Your task to perform on an android device: install app "Messages" Image 0: 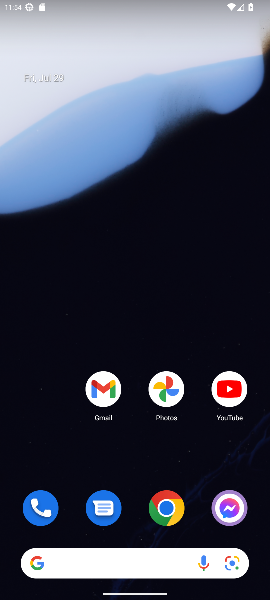
Step 0: drag from (115, 558) to (180, 4)
Your task to perform on an android device: install app "Messages" Image 1: 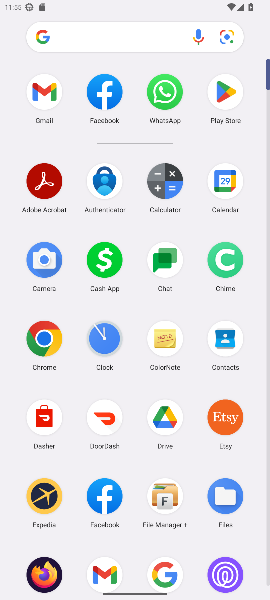
Step 1: drag from (182, 523) to (215, 353)
Your task to perform on an android device: install app "Messages" Image 2: 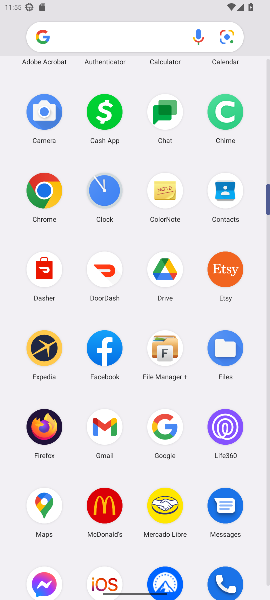
Step 2: drag from (192, 175) to (181, 536)
Your task to perform on an android device: install app "Messages" Image 3: 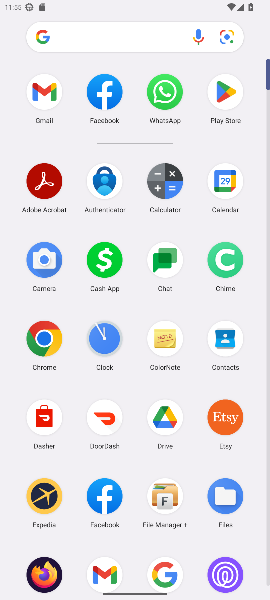
Step 3: click (227, 100)
Your task to perform on an android device: install app "Messages" Image 4: 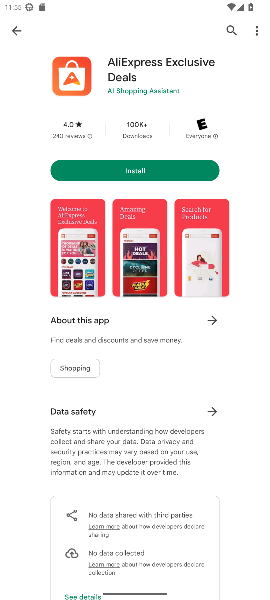
Step 4: click (232, 27)
Your task to perform on an android device: install app "Messages" Image 5: 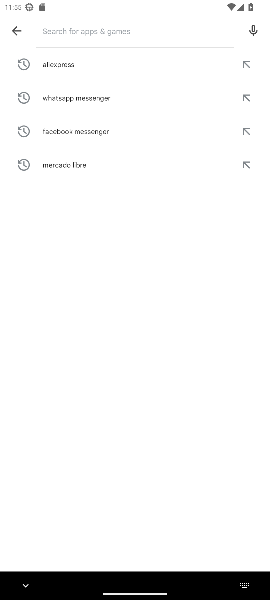
Step 5: type "messages"
Your task to perform on an android device: install app "Messages" Image 6: 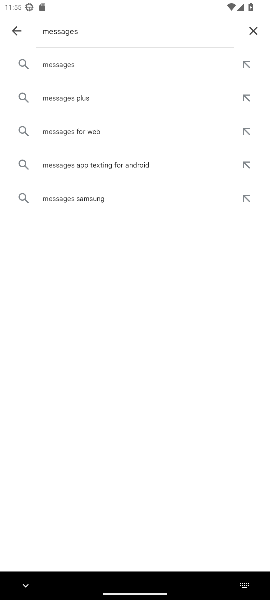
Step 6: click (60, 64)
Your task to perform on an android device: install app "Messages" Image 7: 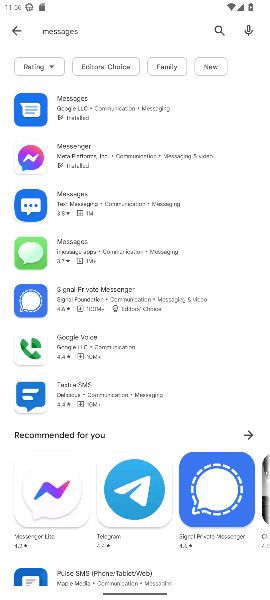
Step 7: click (95, 104)
Your task to perform on an android device: install app "Messages" Image 8: 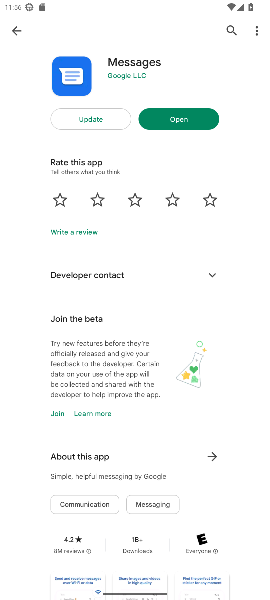
Step 8: task complete